Your task to perform on an android device: toggle notifications settings in the gmail app Image 0: 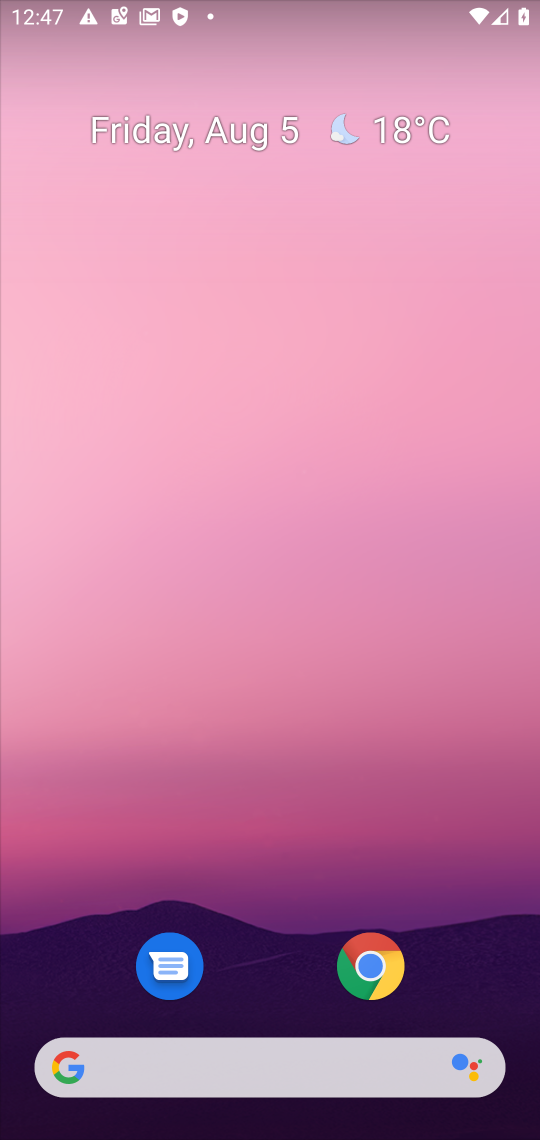
Step 0: drag from (283, 909) to (343, 53)
Your task to perform on an android device: toggle notifications settings in the gmail app Image 1: 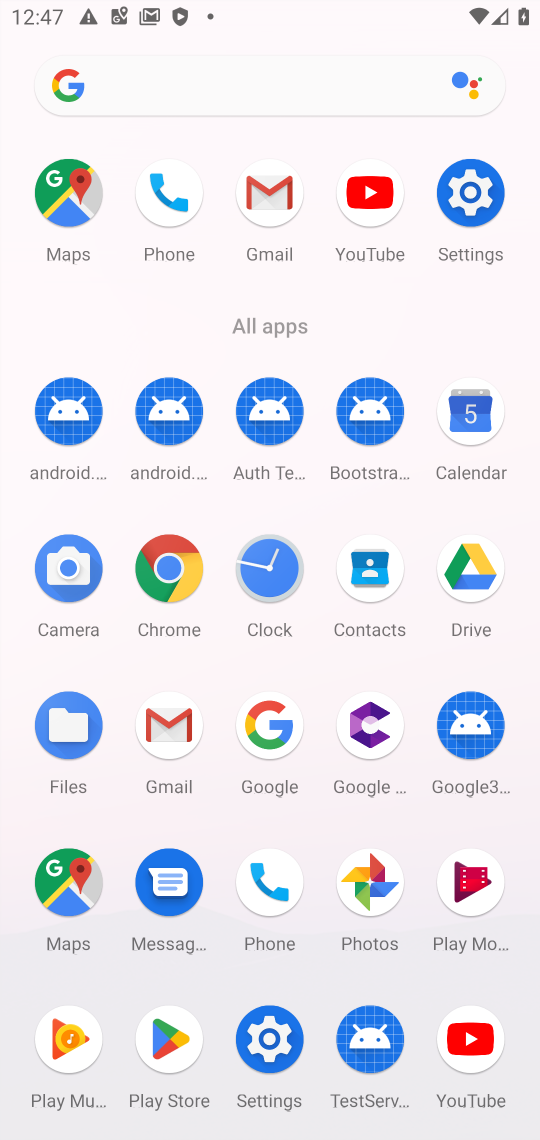
Step 1: click (282, 192)
Your task to perform on an android device: toggle notifications settings in the gmail app Image 2: 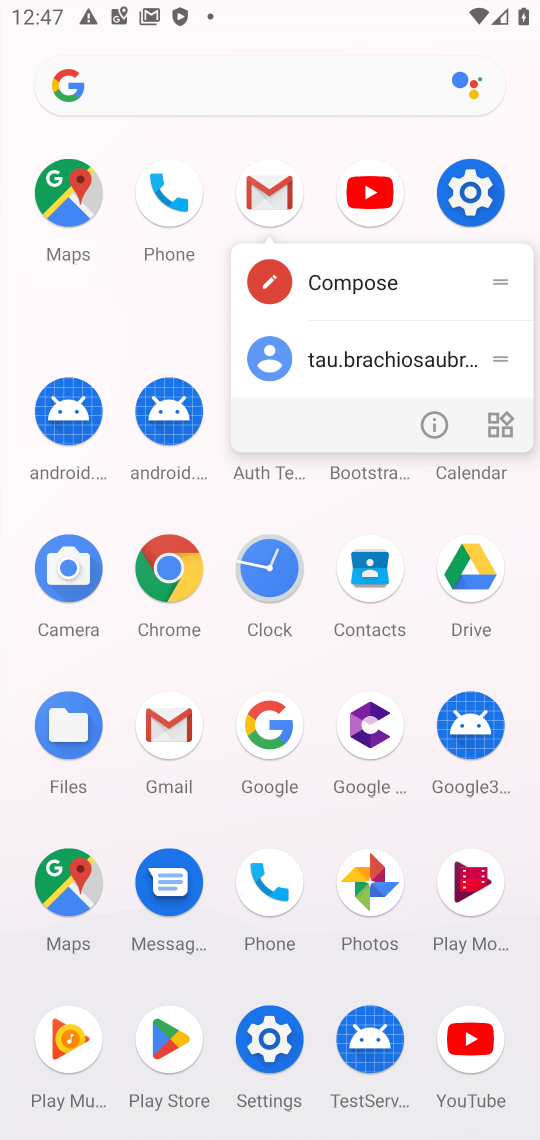
Step 2: click (282, 194)
Your task to perform on an android device: toggle notifications settings in the gmail app Image 3: 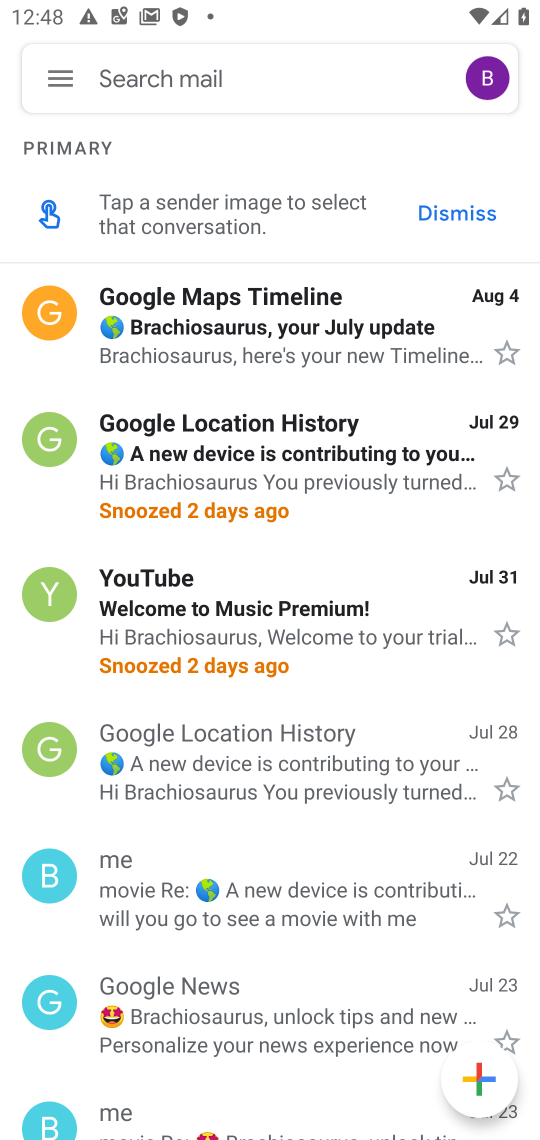
Step 3: click (56, 66)
Your task to perform on an android device: toggle notifications settings in the gmail app Image 4: 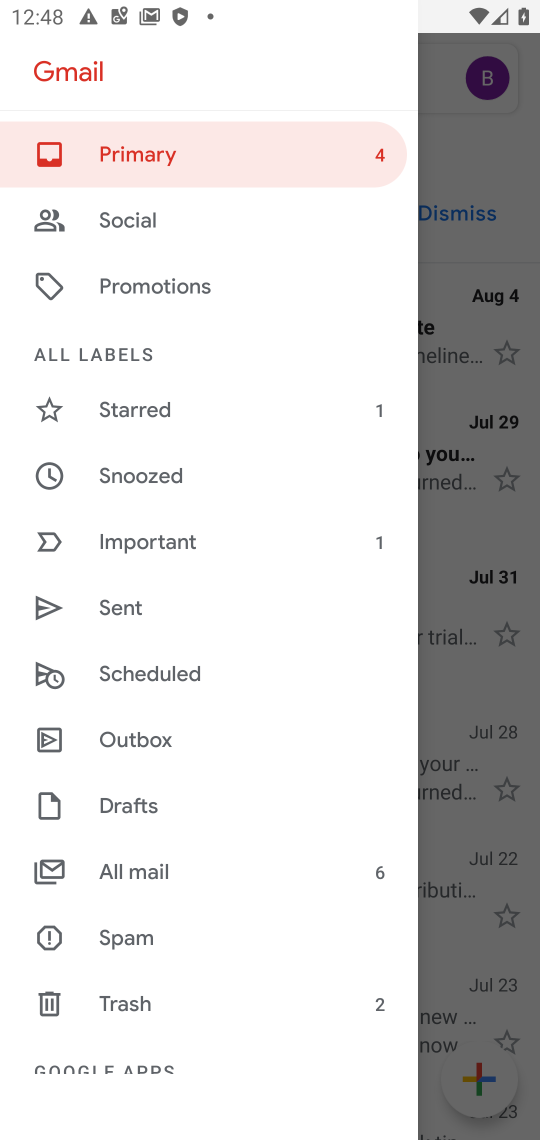
Step 4: drag from (217, 955) to (325, 330)
Your task to perform on an android device: toggle notifications settings in the gmail app Image 5: 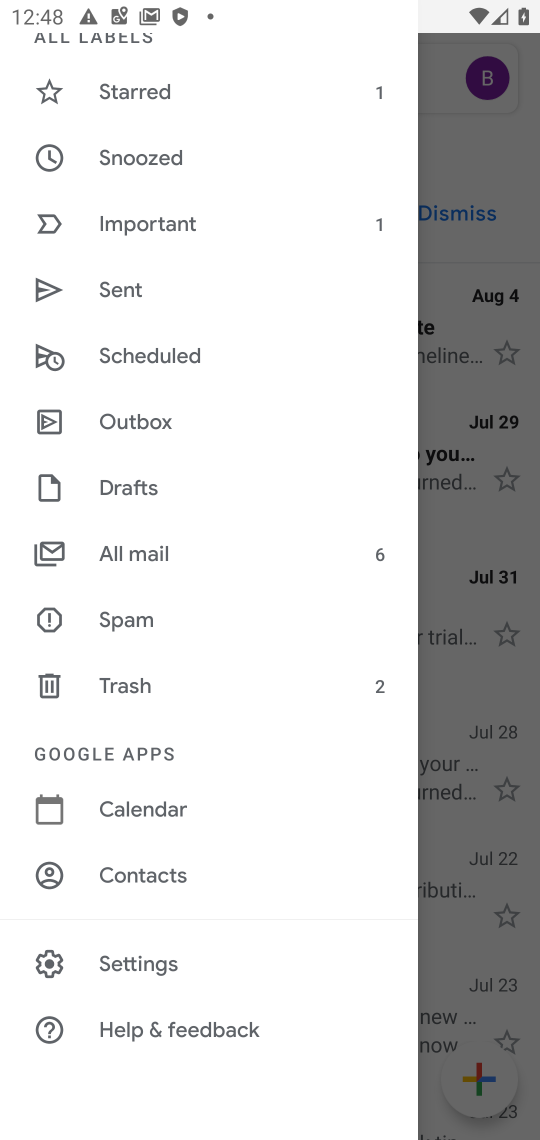
Step 5: click (149, 953)
Your task to perform on an android device: toggle notifications settings in the gmail app Image 6: 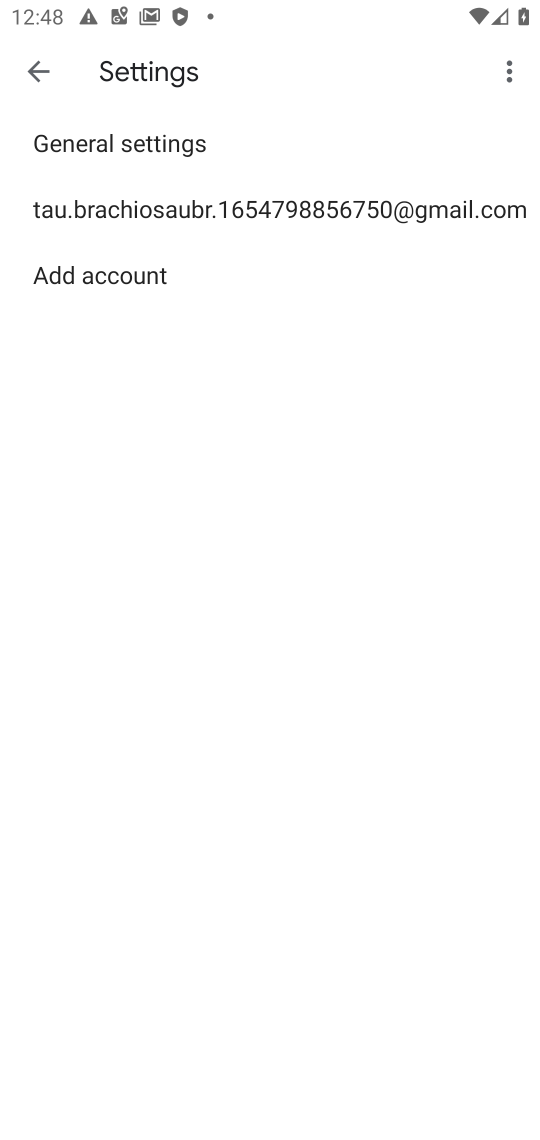
Step 6: click (331, 208)
Your task to perform on an android device: toggle notifications settings in the gmail app Image 7: 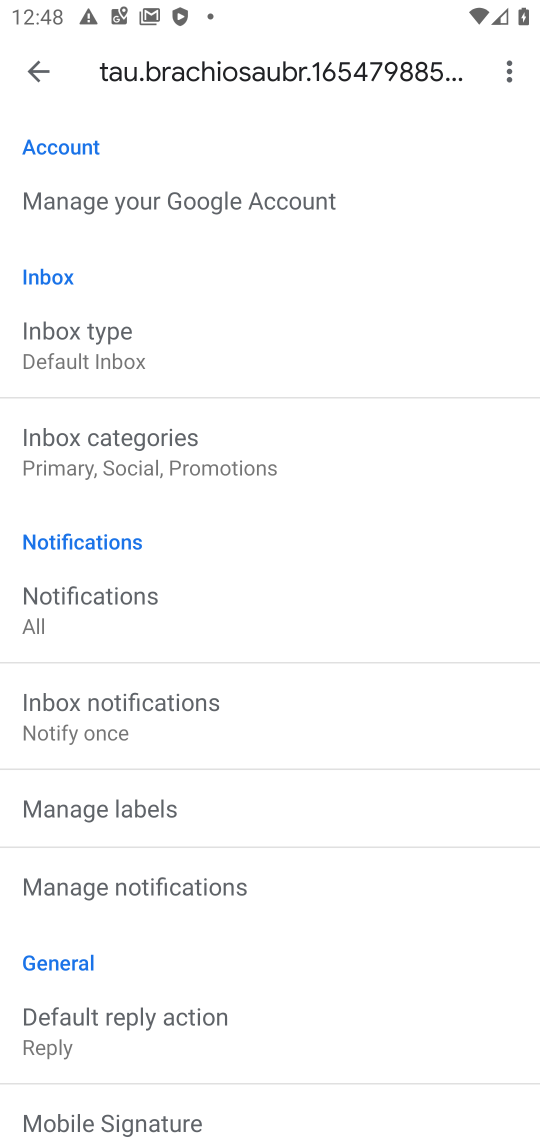
Step 7: click (234, 879)
Your task to perform on an android device: toggle notifications settings in the gmail app Image 8: 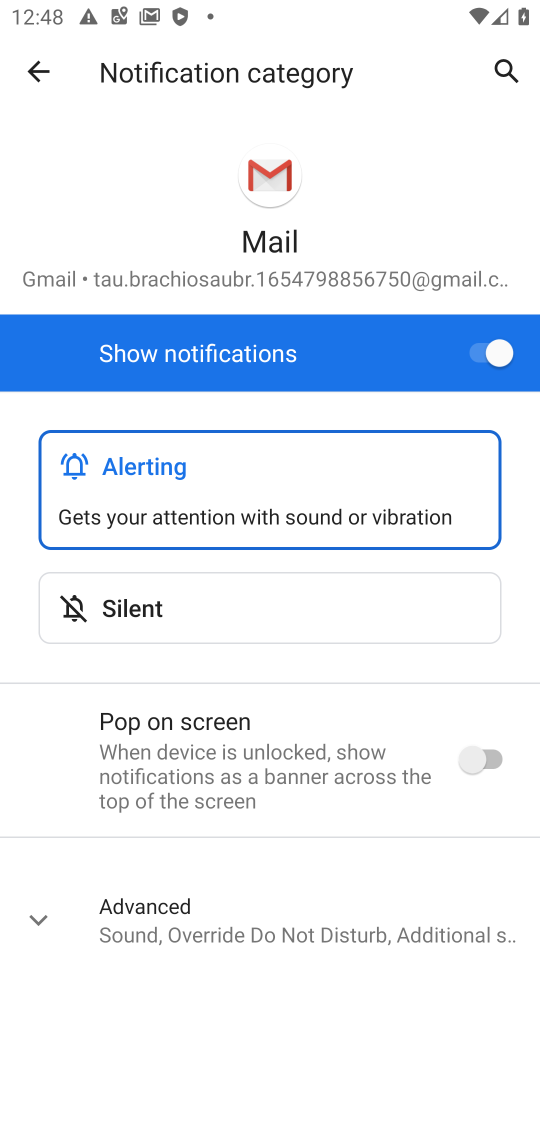
Step 8: click (501, 351)
Your task to perform on an android device: toggle notifications settings in the gmail app Image 9: 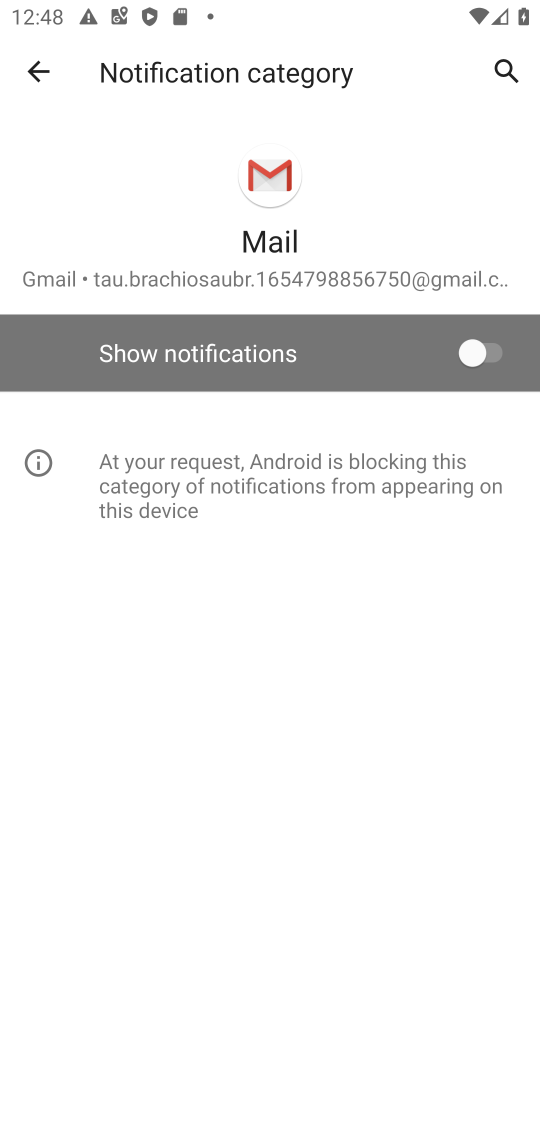
Step 9: task complete